Your task to perform on an android device: Go to Google Image 0: 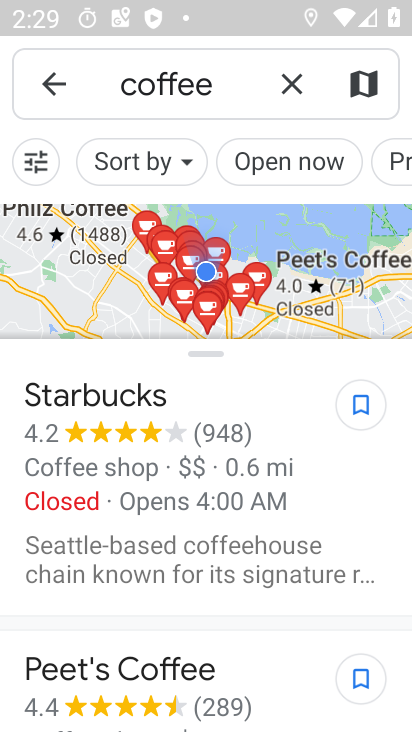
Step 0: press home button
Your task to perform on an android device: Go to Google Image 1: 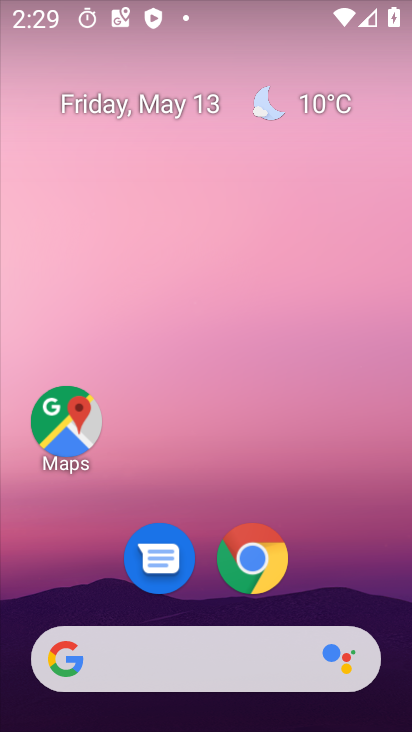
Step 1: drag from (240, 347) to (273, 166)
Your task to perform on an android device: Go to Google Image 2: 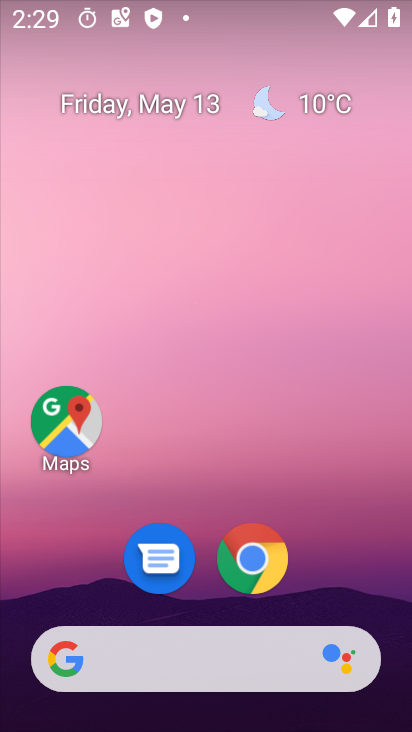
Step 2: drag from (196, 595) to (217, 197)
Your task to perform on an android device: Go to Google Image 3: 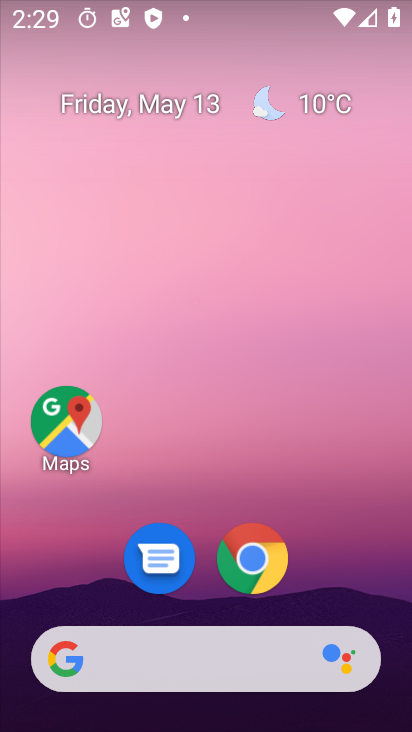
Step 3: drag from (202, 602) to (214, 204)
Your task to perform on an android device: Go to Google Image 4: 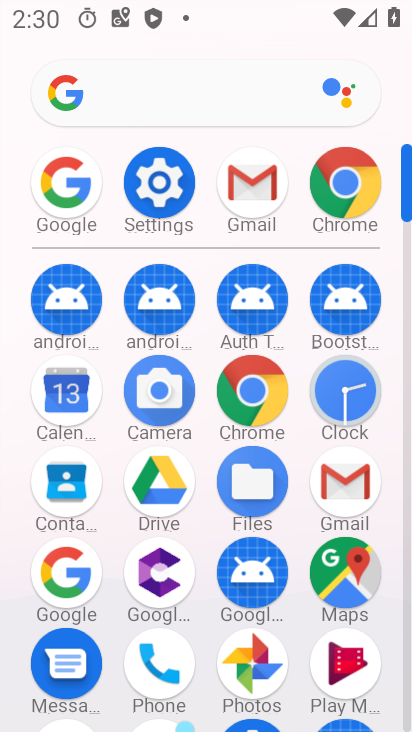
Step 4: click (65, 576)
Your task to perform on an android device: Go to Google Image 5: 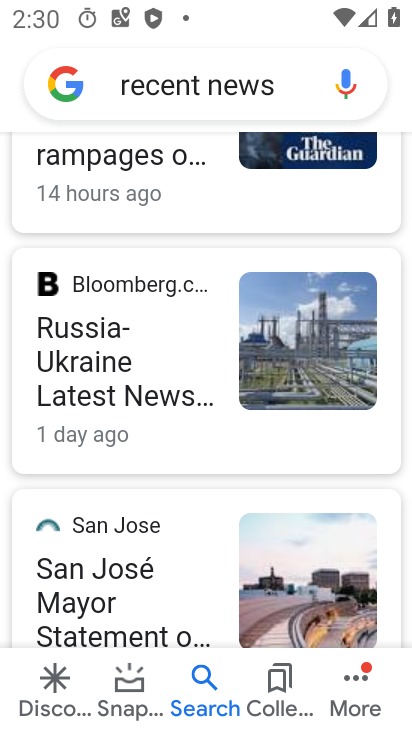
Step 5: task complete